Your task to perform on an android device: Is it going to rain this weekend? Image 0: 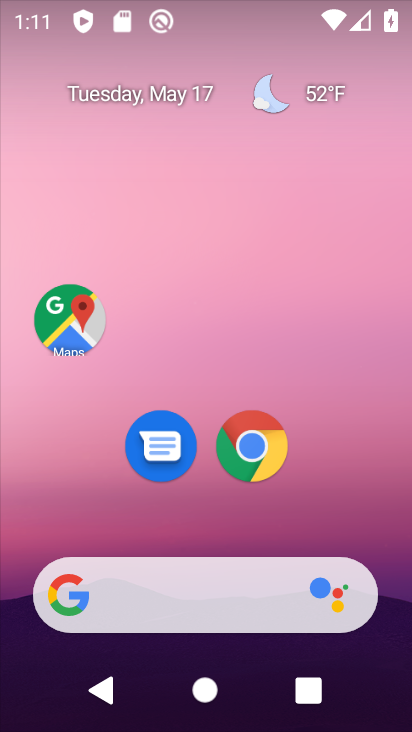
Step 0: click (316, 98)
Your task to perform on an android device: Is it going to rain this weekend? Image 1: 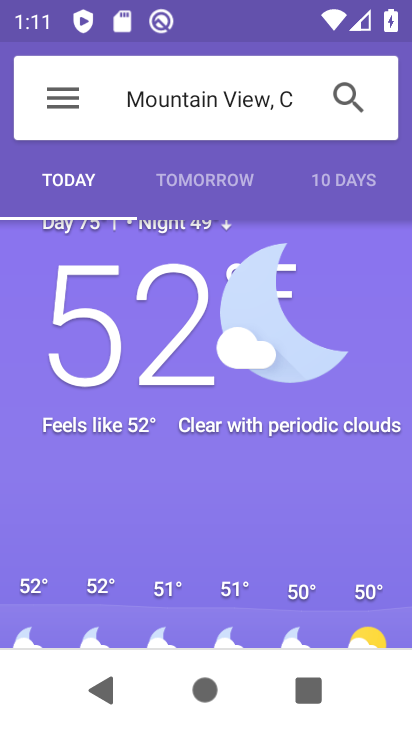
Step 1: click (328, 190)
Your task to perform on an android device: Is it going to rain this weekend? Image 2: 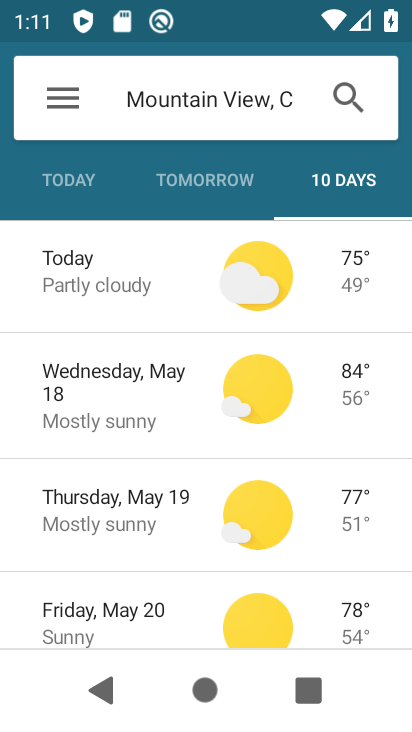
Step 2: task complete